Your task to perform on an android device: open a new tab in the chrome app Image 0: 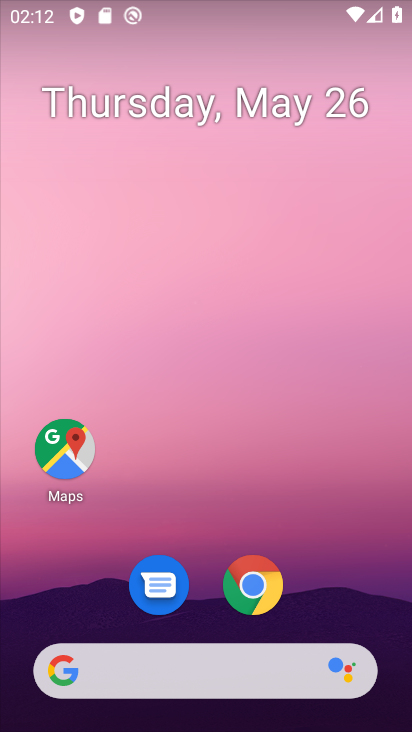
Step 0: click (257, 583)
Your task to perform on an android device: open a new tab in the chrome app Image 1: 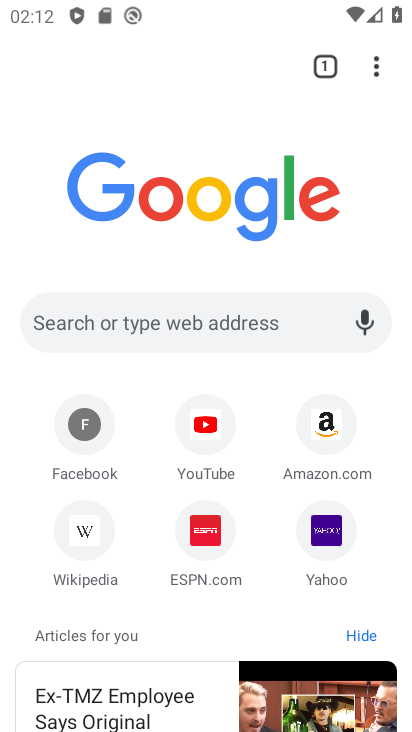
Step 1: click (369, 69)
Your task to perform on an android device: open a new tab in the chrome app Image 2: 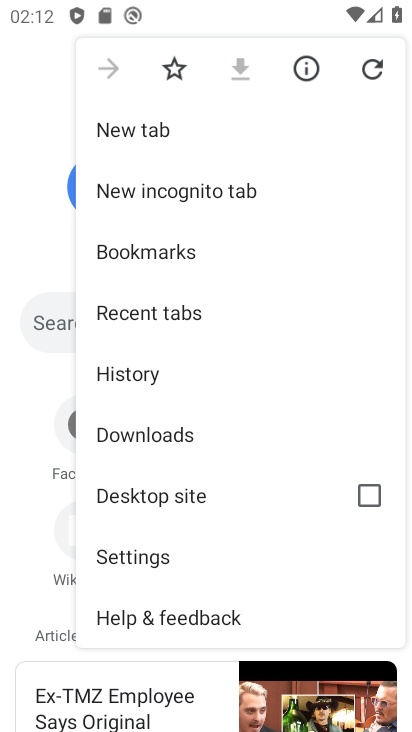
Step 2: click (263, 123)
Your task to perform on an android device: open a new tab in the chrome app Image 3: 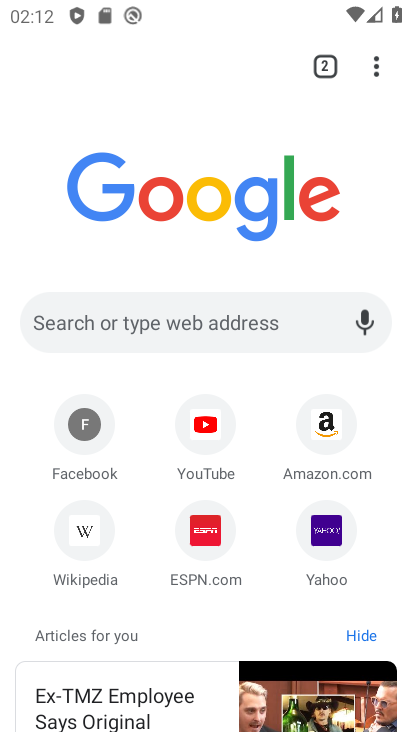
Step 3: task complete